Your task to perform on an android device: change the clock display to show seconds Image 0: 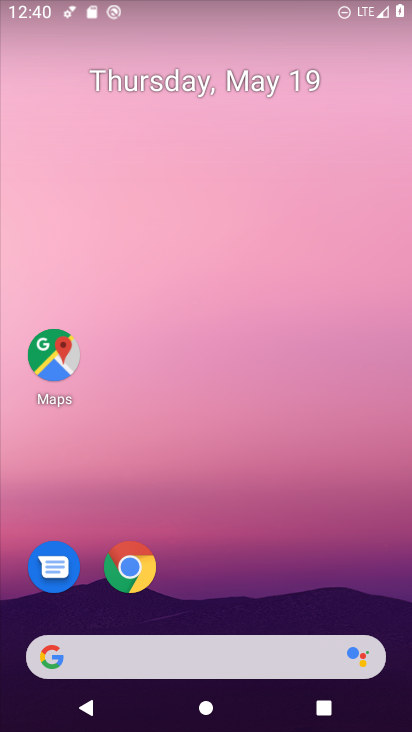
Step 0: drag from (224, 551) to (232, 106)
Your task to perform on an android device: change the clock display to show seconds Image 1: 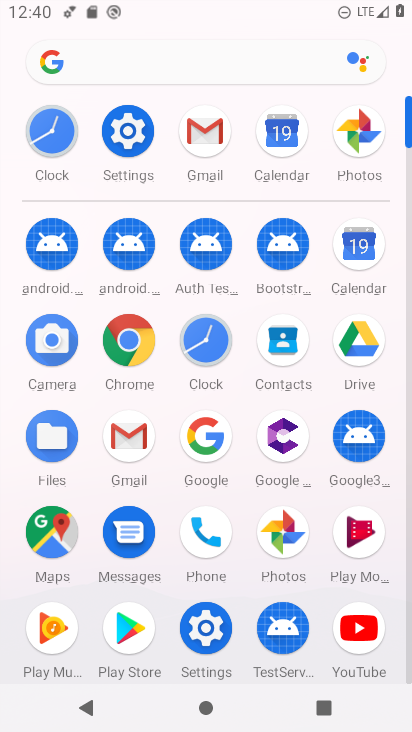
Step 1: click (59, 137)
Your task to perform on an android device: change the clock display to show seconds Image 2: 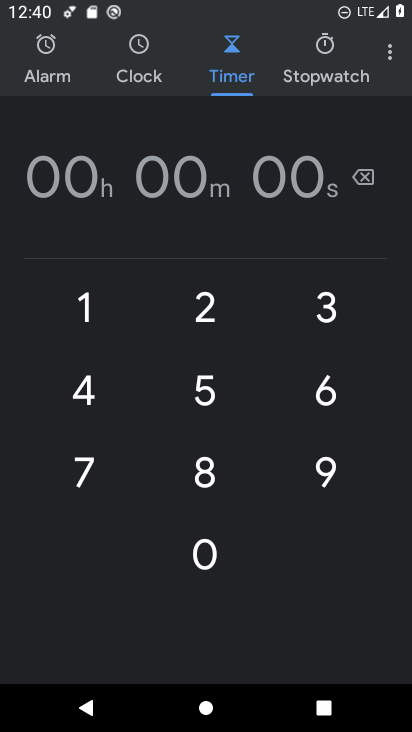
Step 2: click (149, 71)
Your task to perform on an android device: change the clock display to show seconds Image 3: 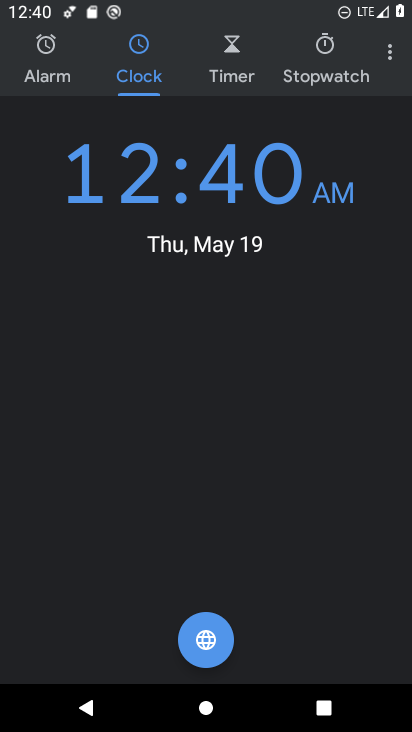
Step 3: click (392, 55)
Your task to perform on an android device: change the clock display to show seconds Image 4: 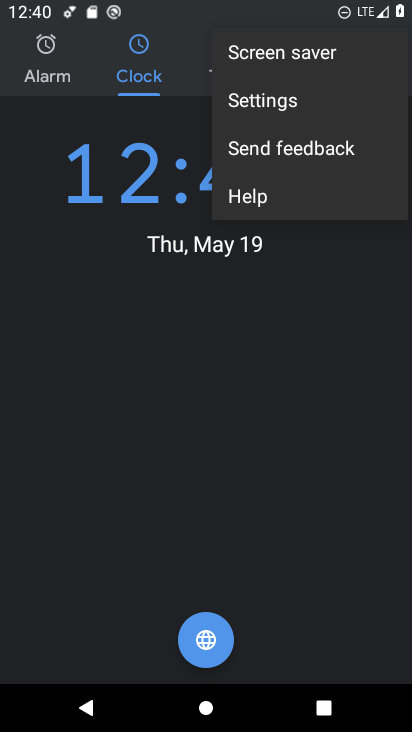
Step 4: click (329, 96)
Your task to perform on an android device: change the clock display to show seconds Image 5: 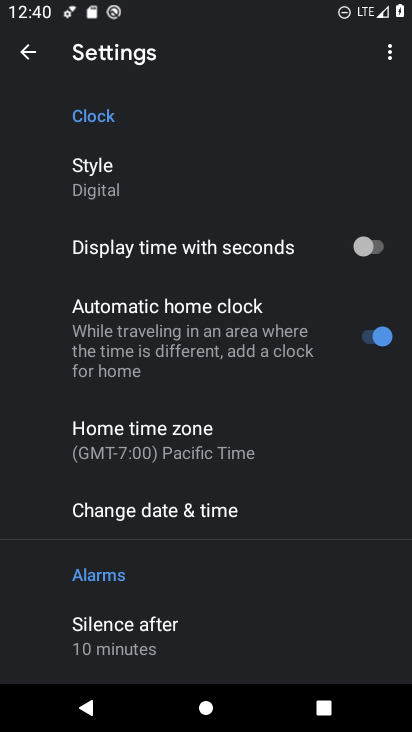
Step 5: click (379, 244)
Your task to perform on an android device: change the clock display to show seconds Image 6: 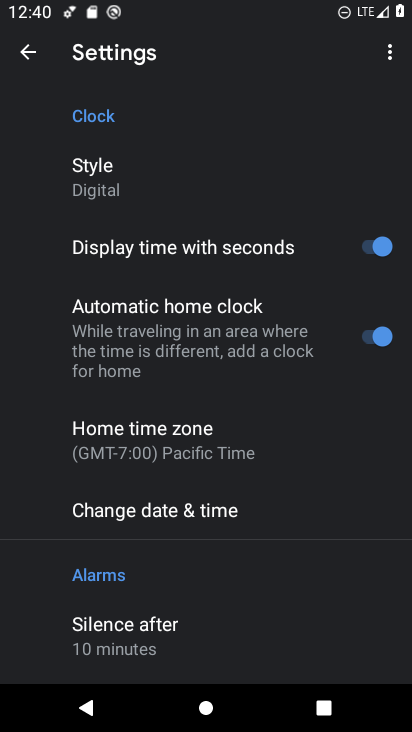
Step 6: click (39, 57)
Your task to perform on an android device: change the clock display to show seconds Image 7: 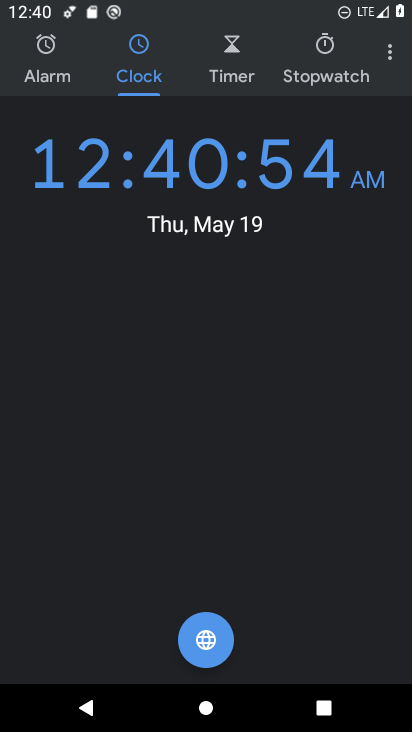
Step 7: task complete